Your task to perform on an android device: Turn on the flashlight Image 0: 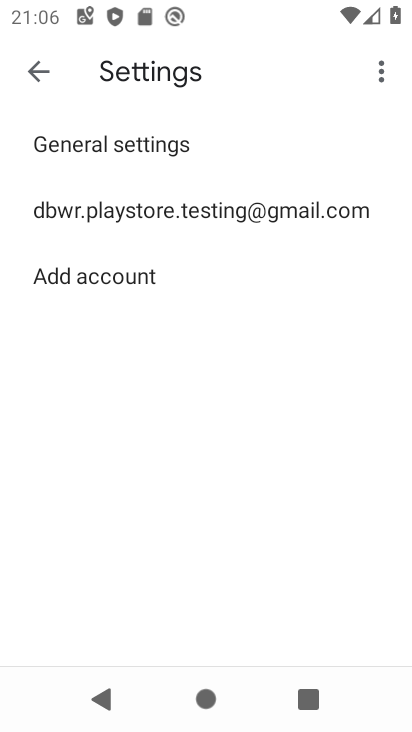
Step 0: press home button
Your task to perform on an android device: Turn on the flashlight Image 1: 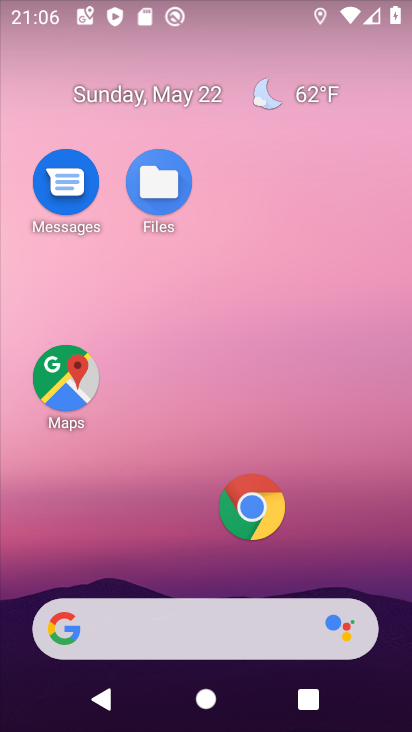
Step 1: drag from (204, 577) to (119, 10)
Your task to perform on an android device: Turn on the flashlight Image 2: 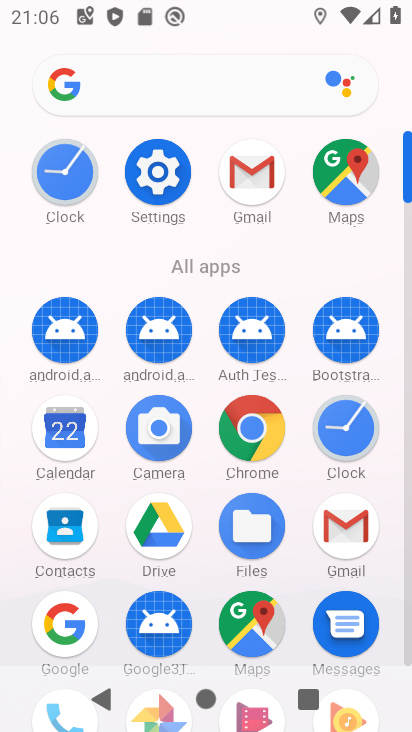
Step 2: click (156, 187)
Your task to perform on an android device: Turn on the flashlight Image 3: 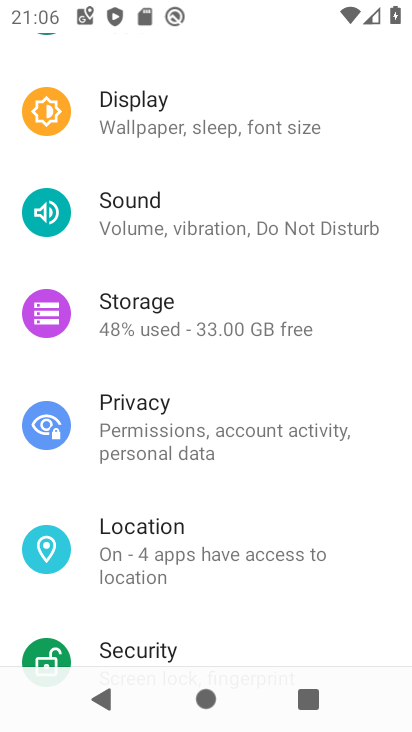
Step 3: task complete